Your task to perform on an android device: turn on airplane mode Image 0: 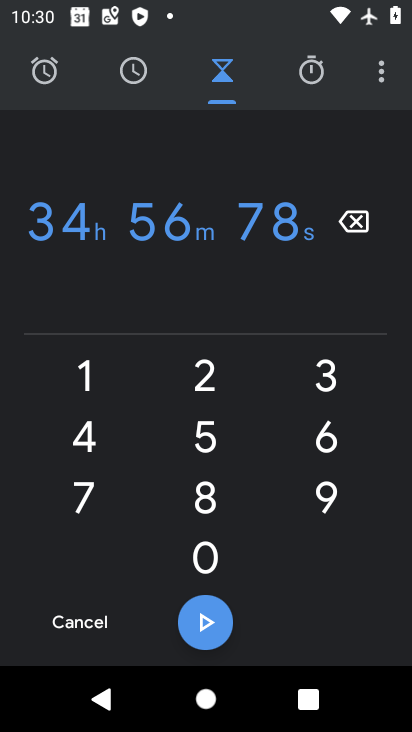
Step 0: press home button
Your task to perform on an android device: turn on airplane mode Image 1: 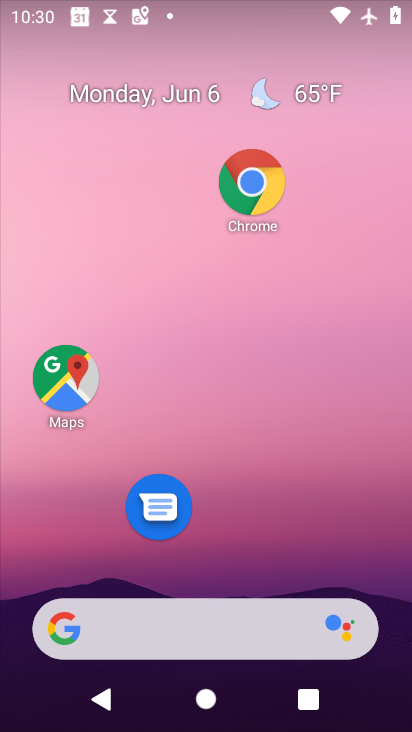
Step 1: drag from (290, 588) to (323, 143)
Your task to perform on an android device: turn on airplane mode Image 2: 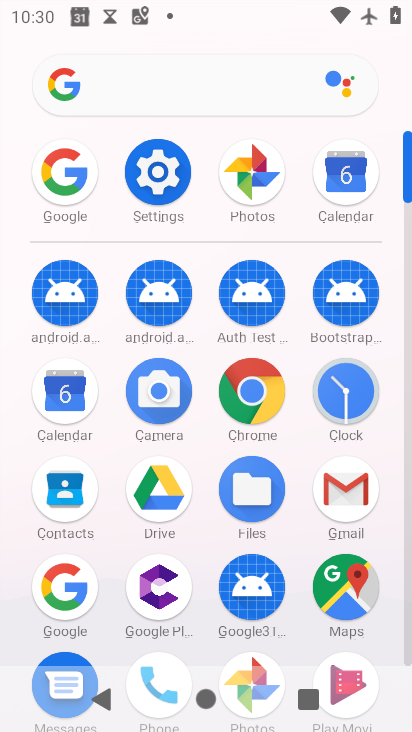
Step 2: click (162, 177)
Your task to perform on an android device: turn on airplane mode Image 3: 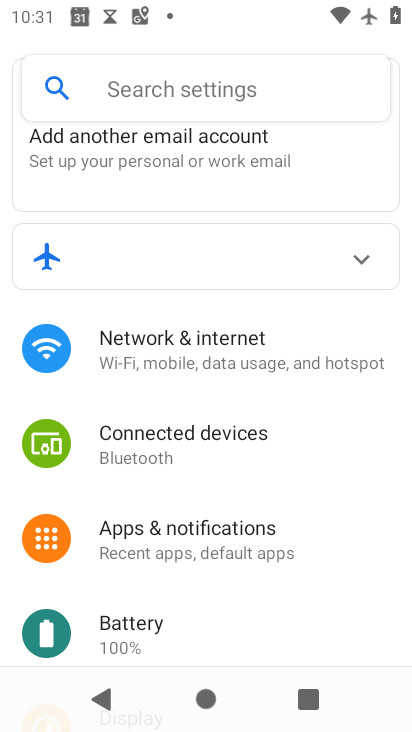
Step 3: click (200, 339)
Your task to perform on an android device: turn on airplane mode Image 4: 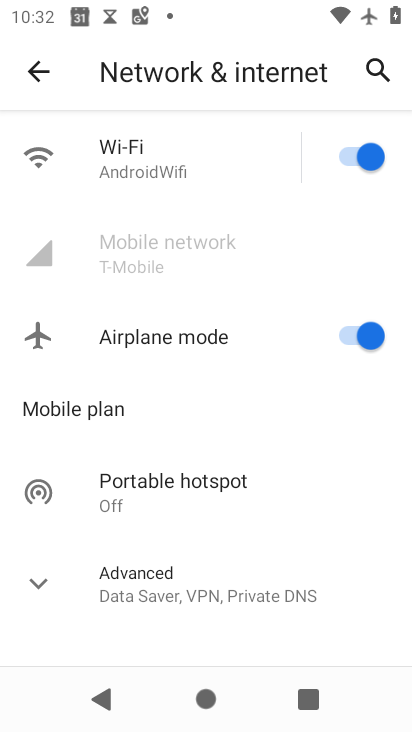
Step 4: task complete